Your task to perform on an android device: Open sound settings Image 0: 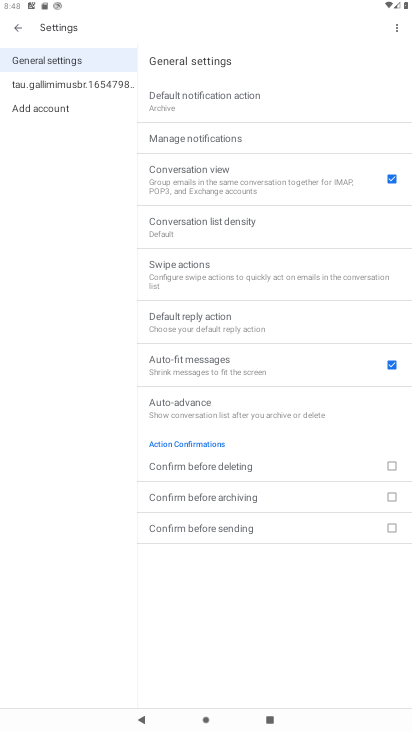
Step 0: press home button
Your task to perform on an android device: Open sound settings Image 1: 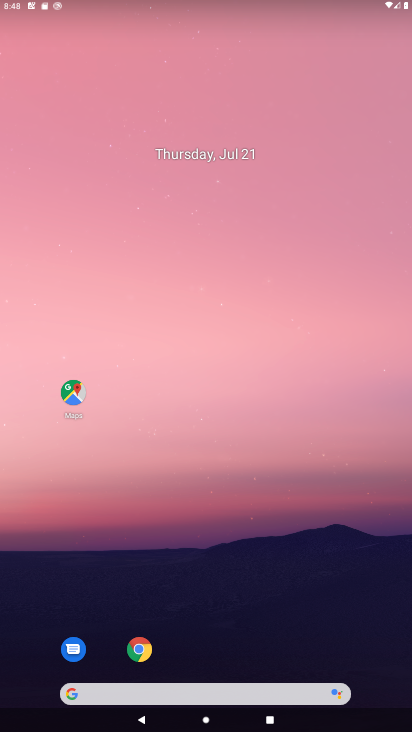
Step 1: drag from (208, 522) to (226, 69)
Your task to perform on an android device: Open sound settings Image 2: 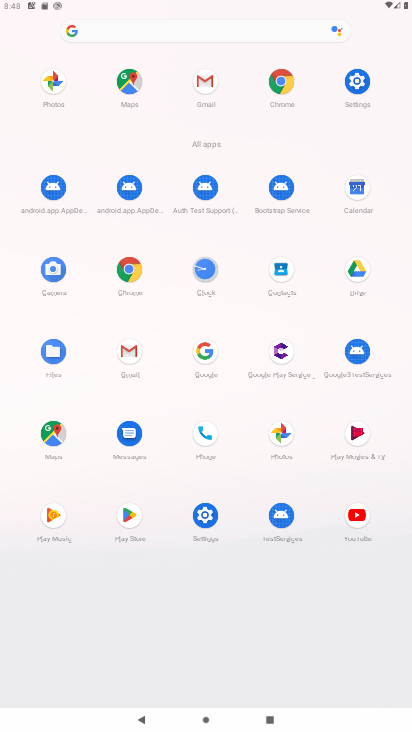
Step 2: click (352, 80)
Your task to perform on an android device: Open sound settings Image 3: 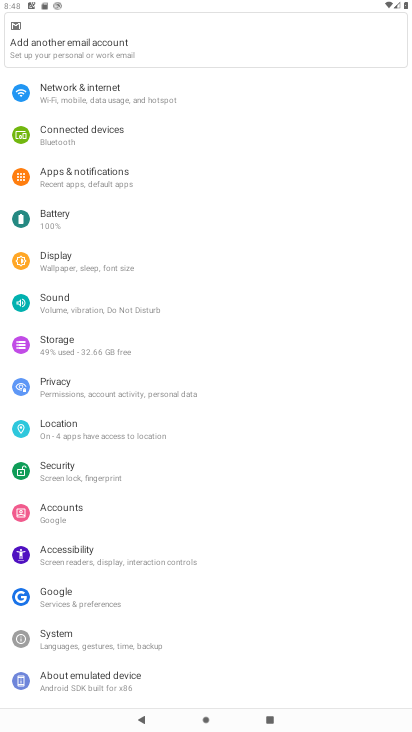
Step 3: click (66, 297)
Your task to perform on an android device: Open sound settings Image 4: 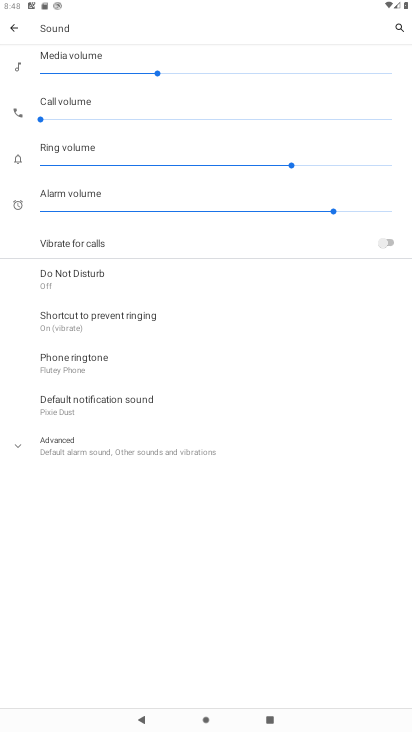
Step 4: task complete